Your task to perform on an android device: Open the Play Movies app and select the watchlist tab. Image 0: 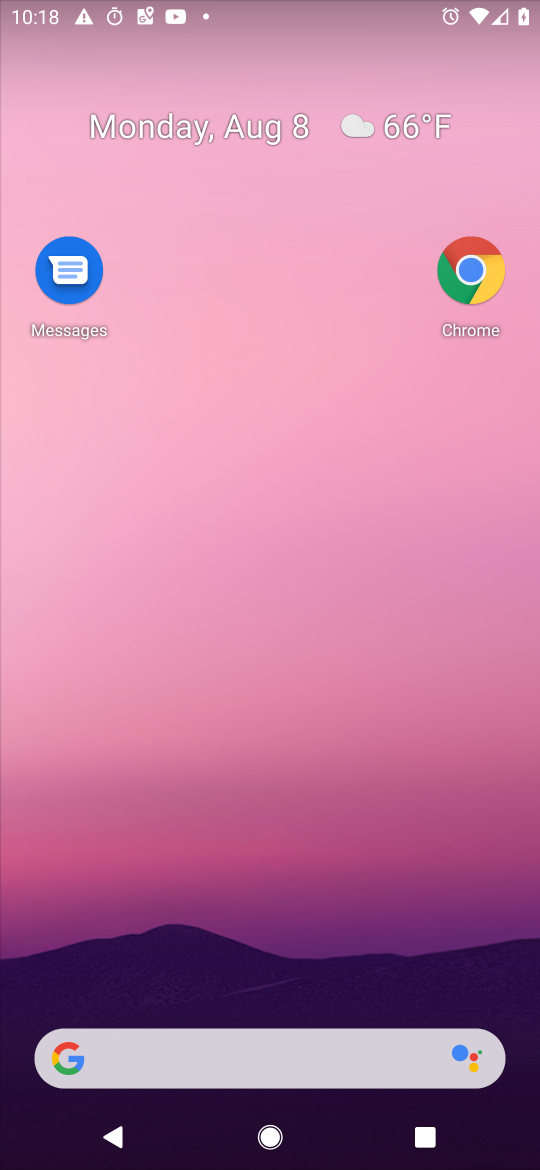
Step 0: press home button
Your task to perform on an android device: Open the Play Movies app and select the watchlist tab. Image 1: 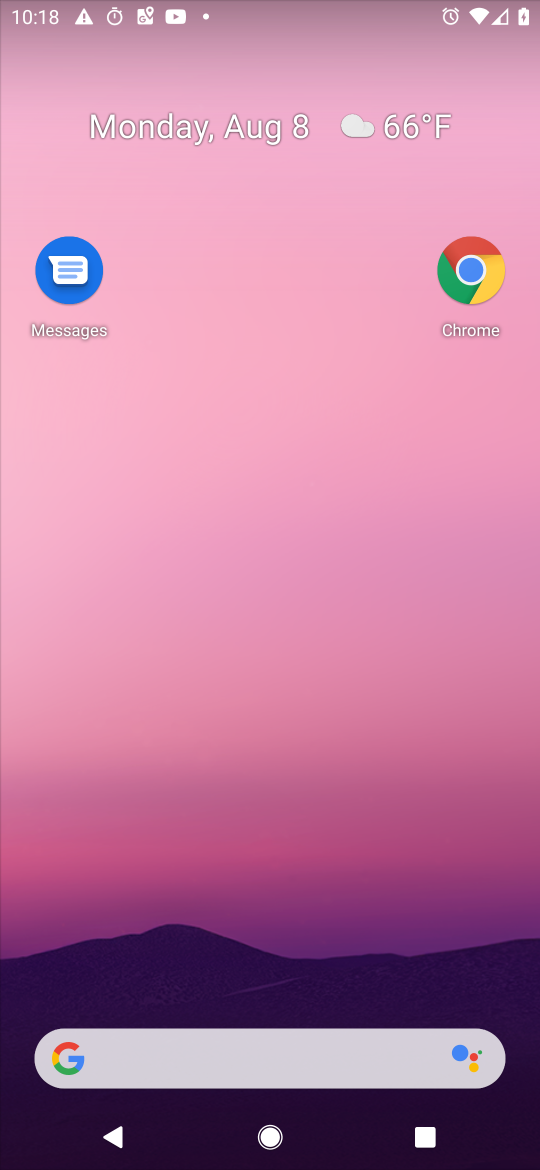
Step 1: drag from (222, 984) to (324, 108)
Your task to perform on an android device: Open the Play Movies app and select the watchlist tab. Image 2: 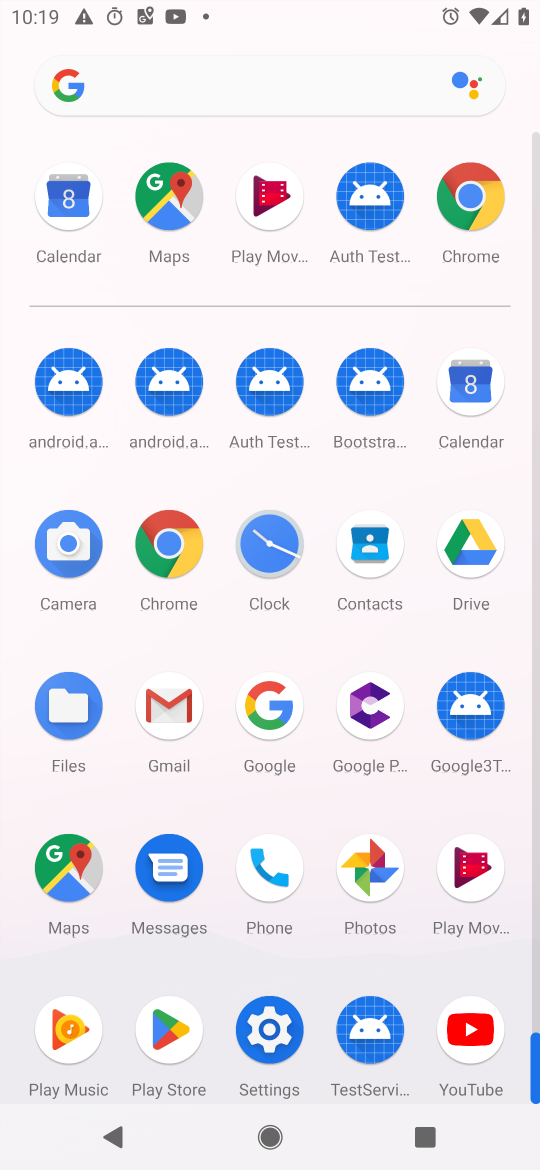
Step 2: click (465, 861)
Your task to perform on an android device: Open the Play Movies app and select the watchlist tab. Image 3: 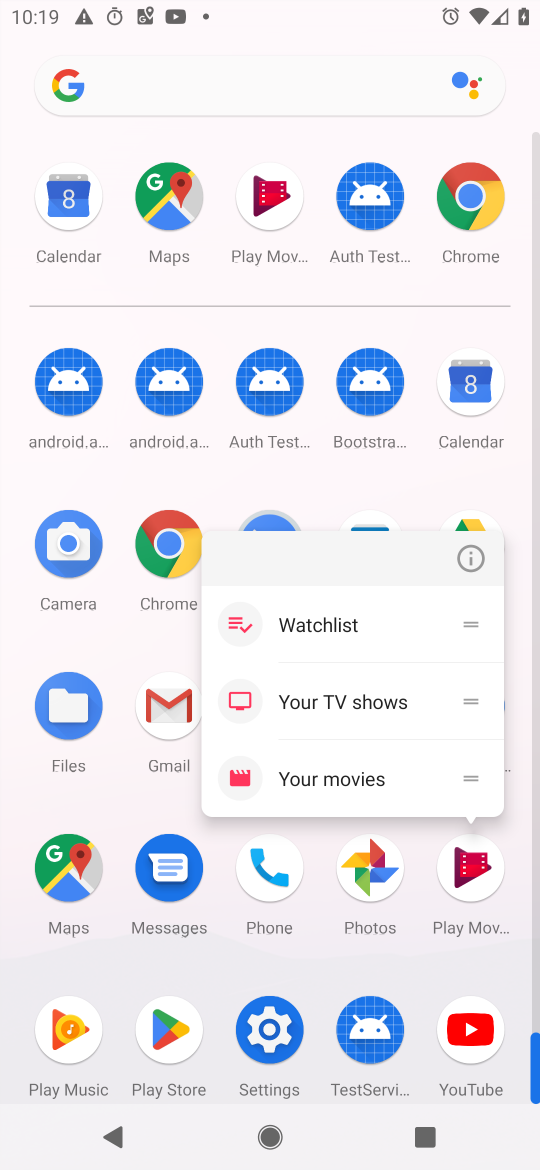
Step 3: click (473, 555)
Your task to perform on an android device: Open the Play Movies app and select the watchlist tab. Image 4: 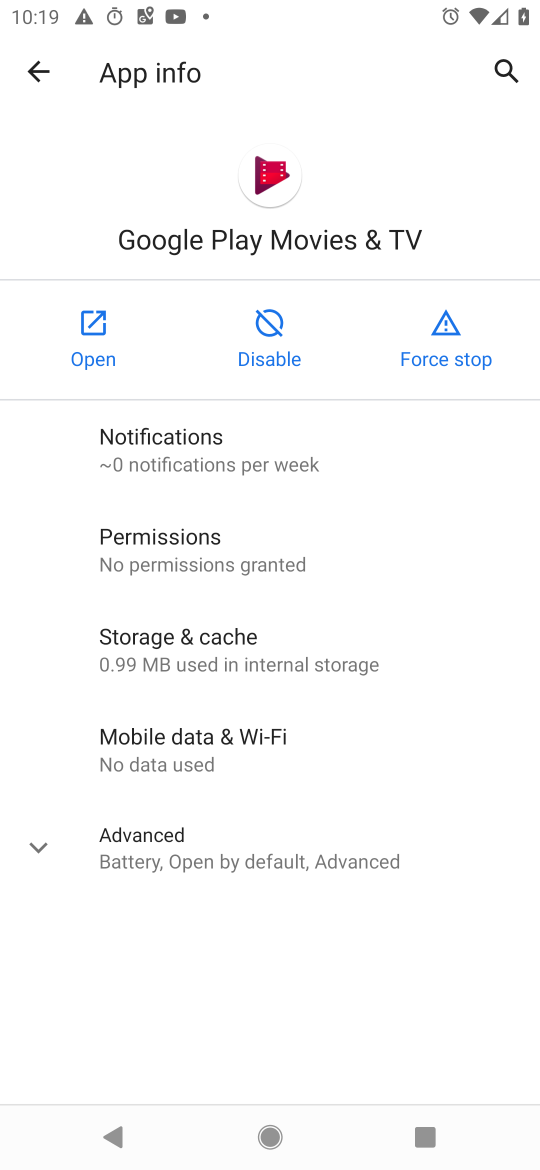
Step 4: click (81, 330)
Your task to perform on an android device: Open the Play Movies app and select the watchlist tab. Image 5: 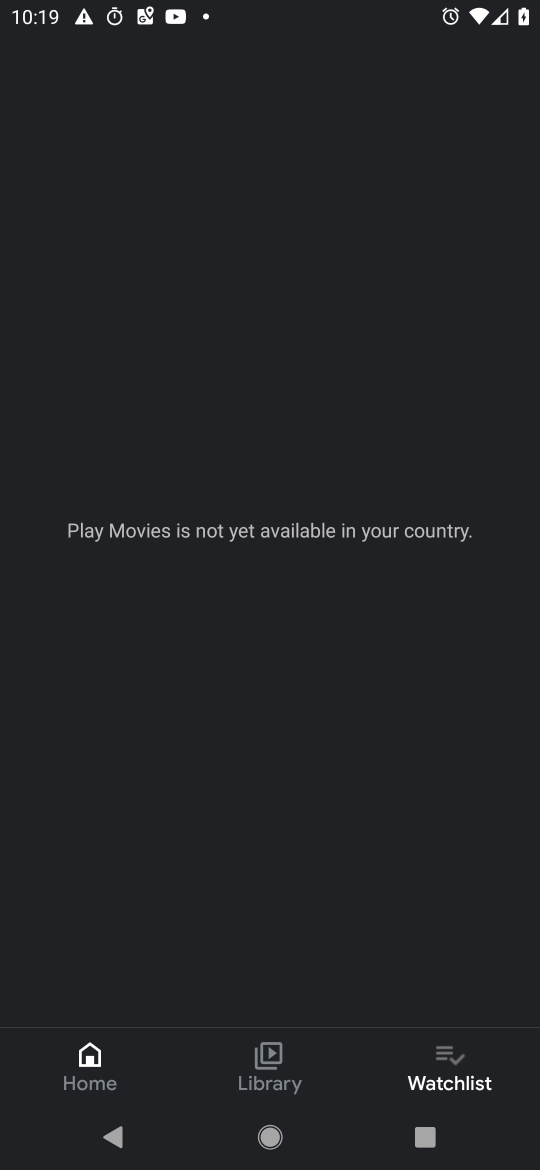
Step 5: click (451, 1058)
Your task to perform on an android device: Open the Play Movies app and select the watchlist tab. Image 6: 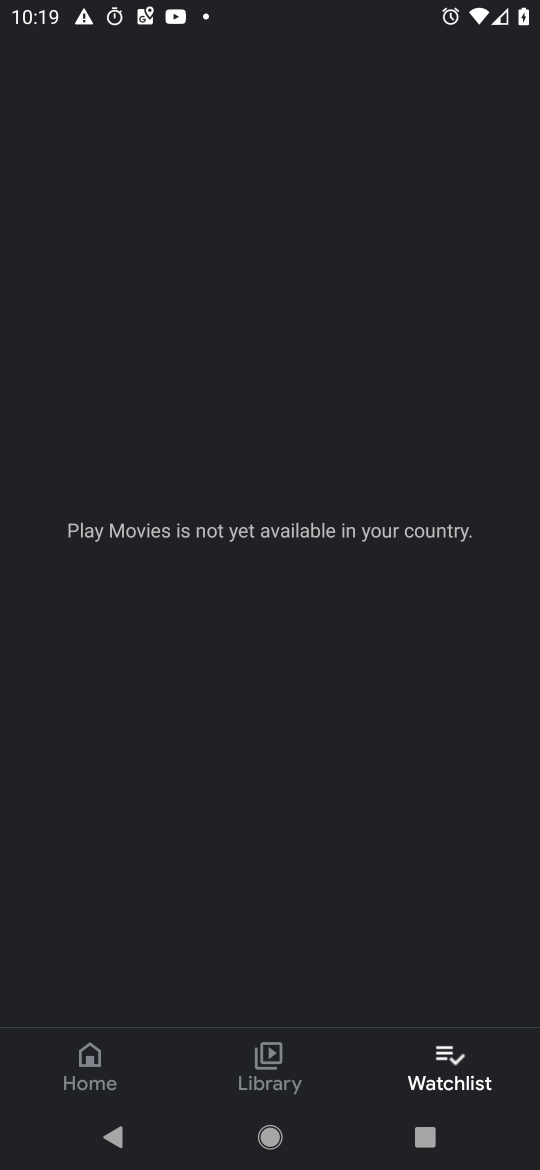
Step 6: task complete